Your task to perform on an android device: Install the Weather app Image 0: 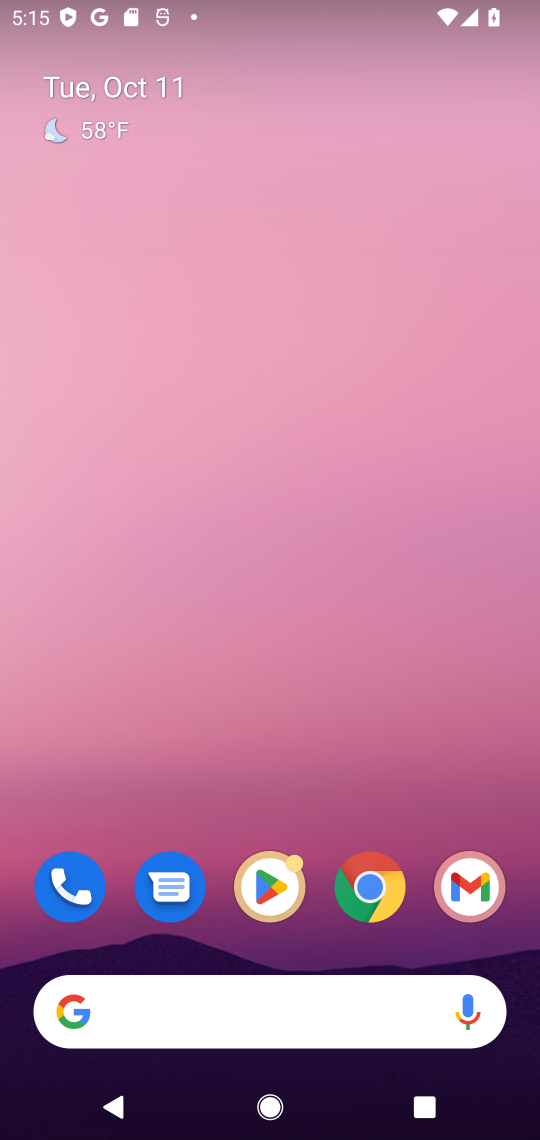
Step 0: click (273, 1020)
Your task to perform on an android device: Install the Weather app Image 1: 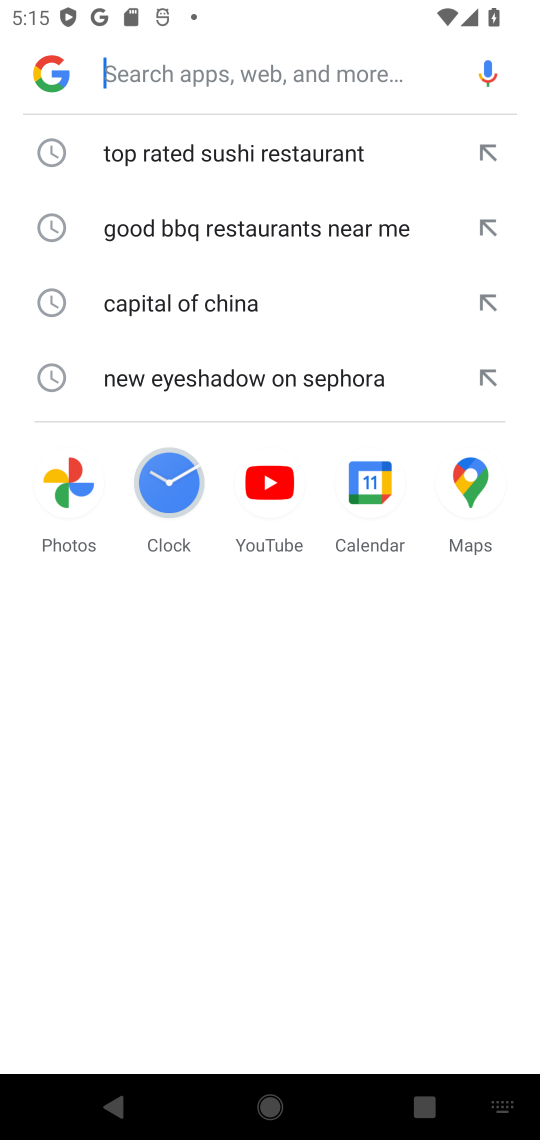
Step 1: press back button
Your task to perform on an android device: Install the Weather app Image 2: 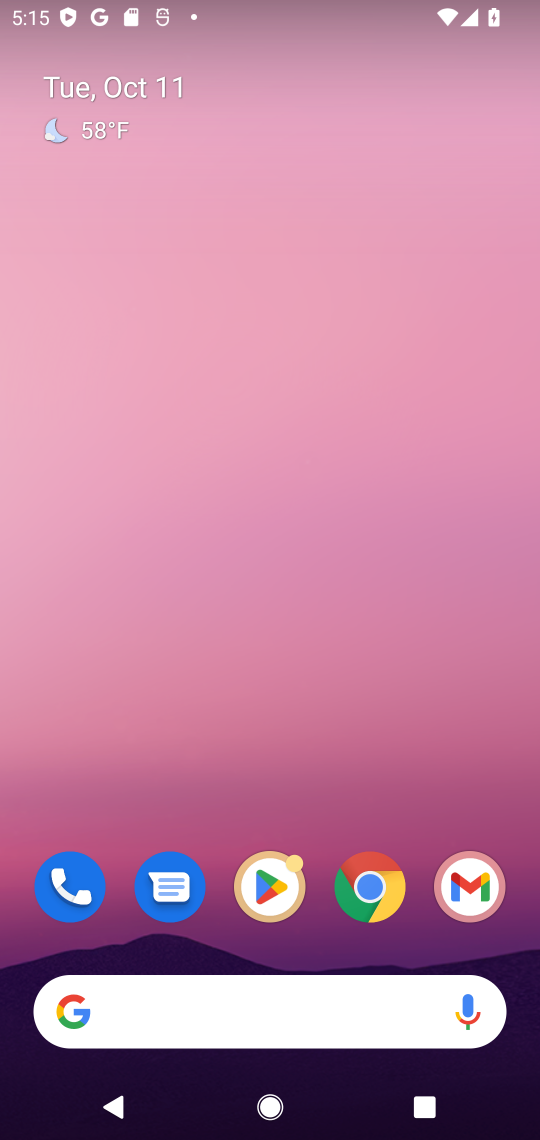
Step 2: click (266, 897)
Your task to perform on an android device: Install the Weather app Image 3: 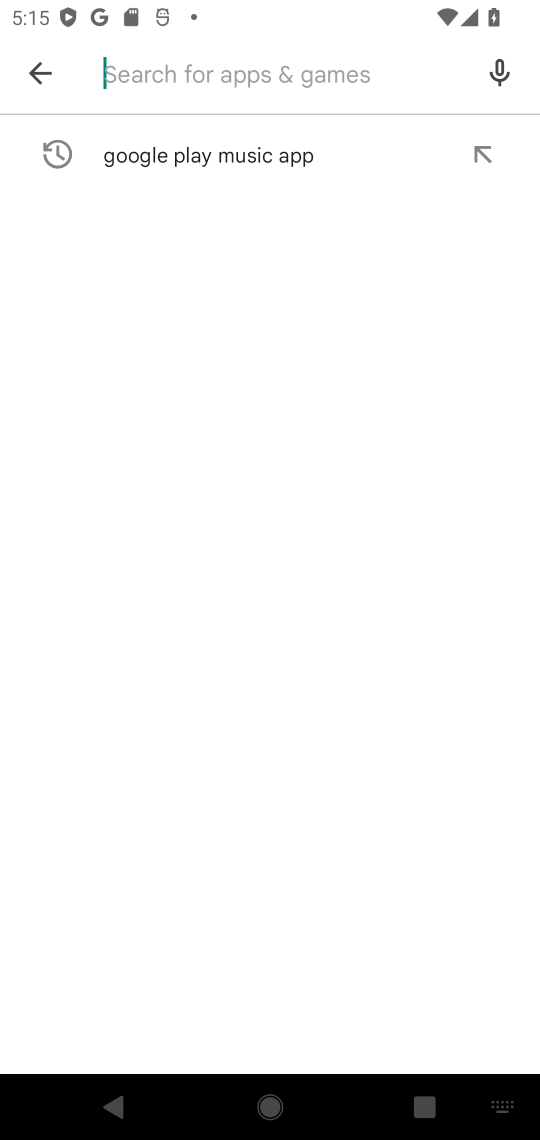
Step 3: click (187, 73)
Your task to perform on an android device: Install the Weather app Image 4: 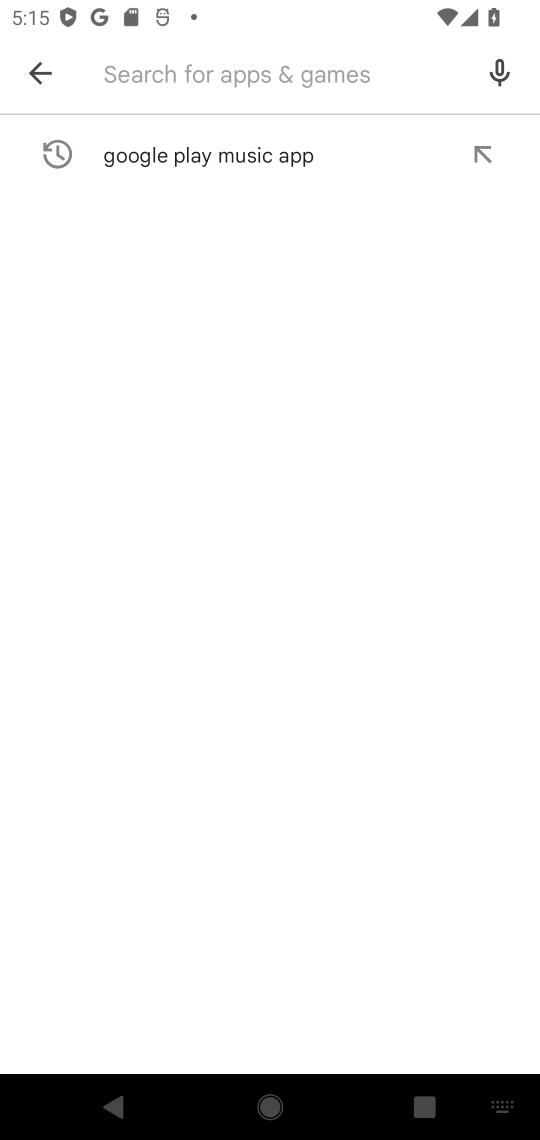
Step 4: type "Weather app"
Your task to perform on an android device: Install the Weather app Image 5: 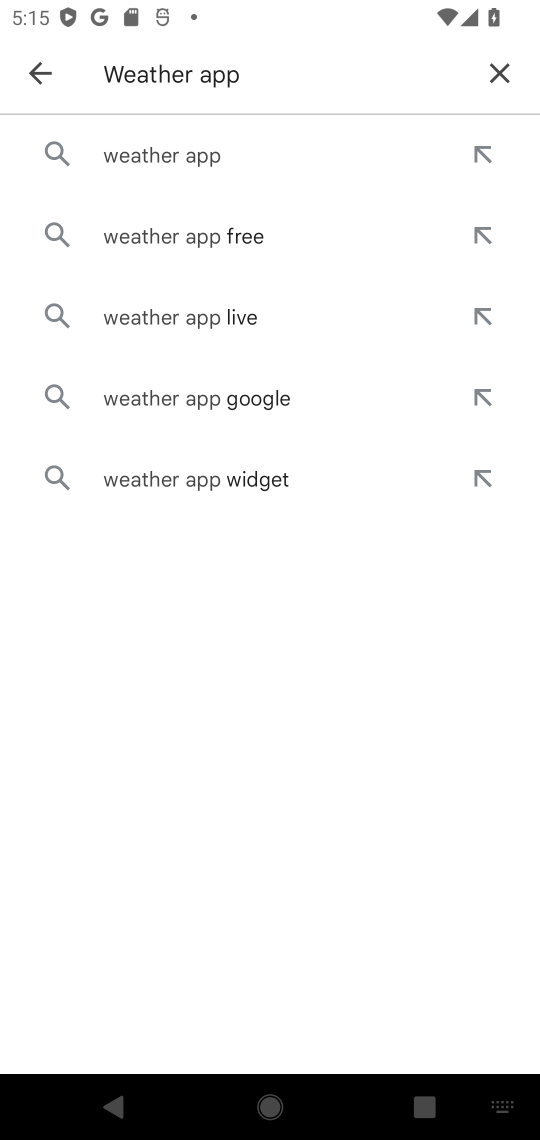
Step 5: type ""
Your task to perform on an android device: Install the Weather app Image 6: 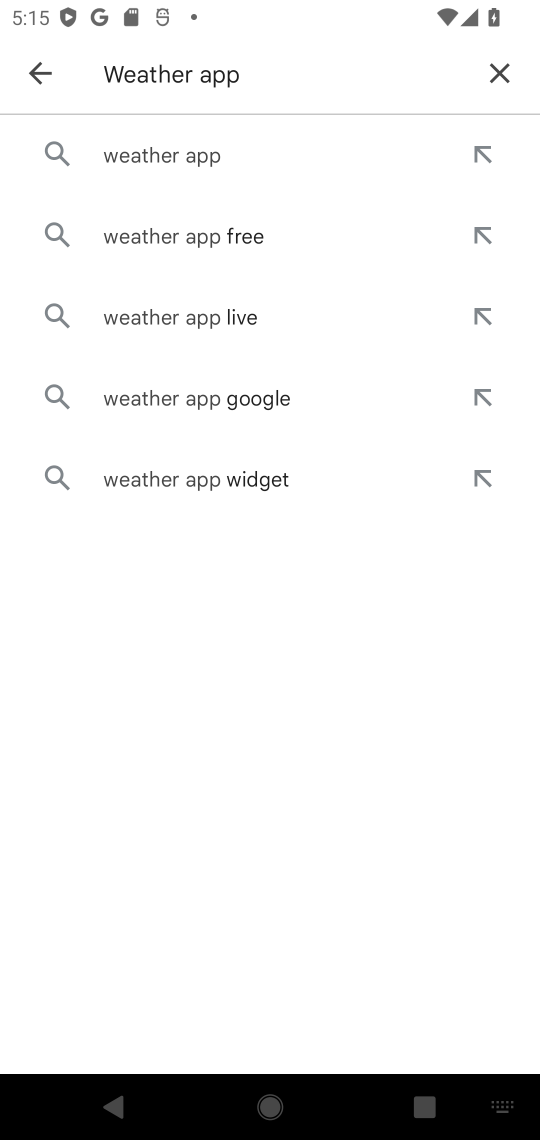
Step 6: type ""
Your task to perform on an android device: Install the Weather app Image 7: 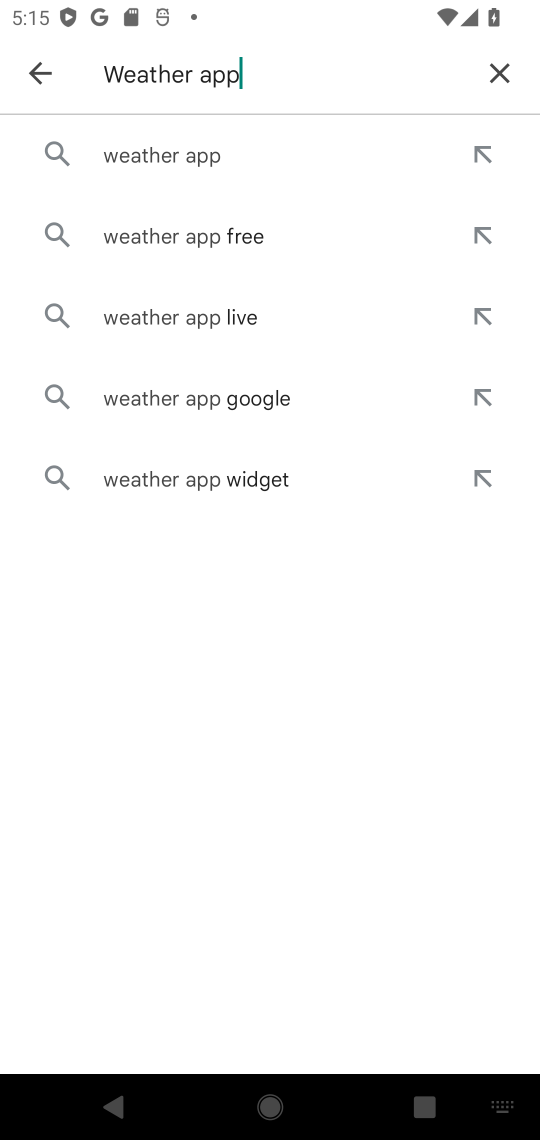
Step 7: type ""
Your task to perform on an android device: Install the Weather app Image 8: 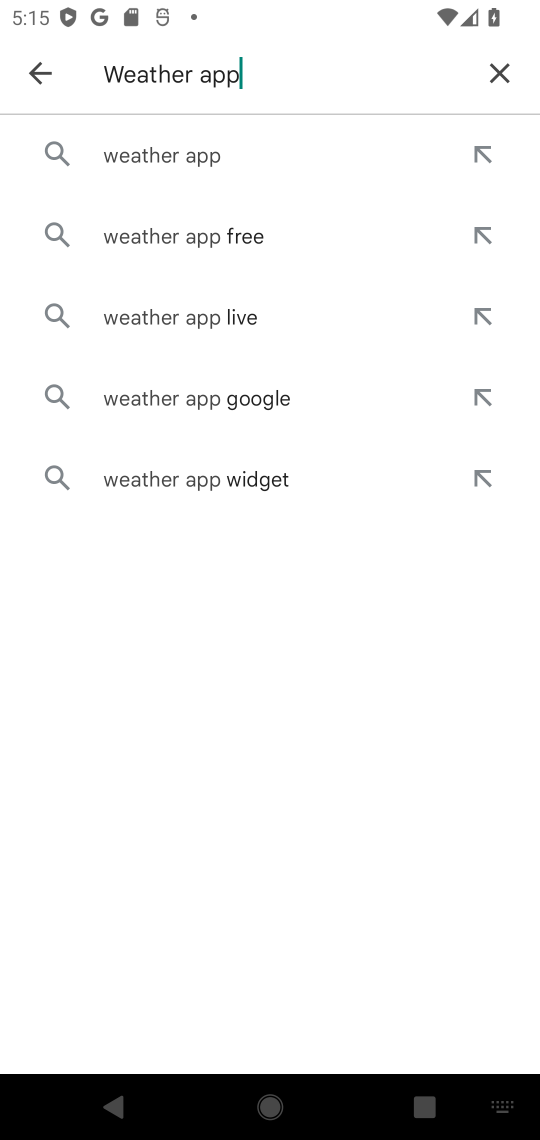
Step 8: press enter
Your task to perform on an android device: Install the Weather app Image 9: 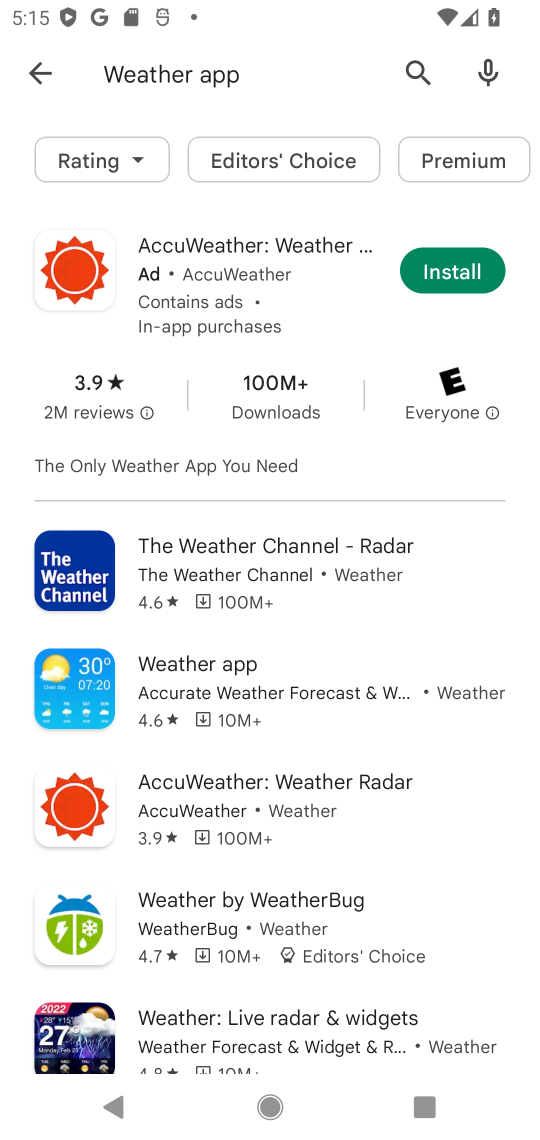
Step 9: click (453, 270)
Your task to perform on an android device: Install the Weather app Image 10: 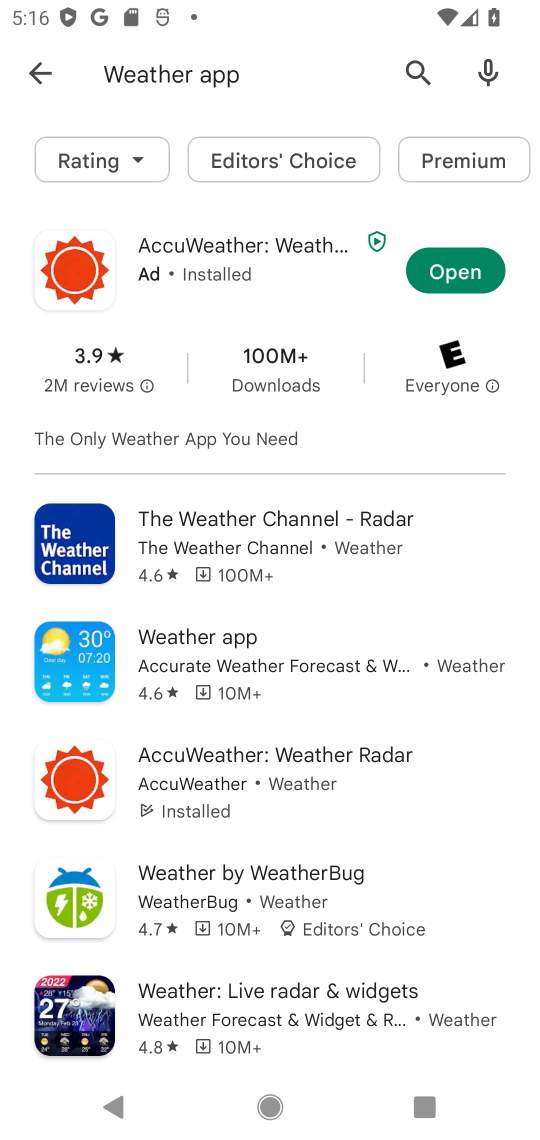
Step 10: click (447, 274)
Your task to perform on an android device: Install the Weather app Image 11: 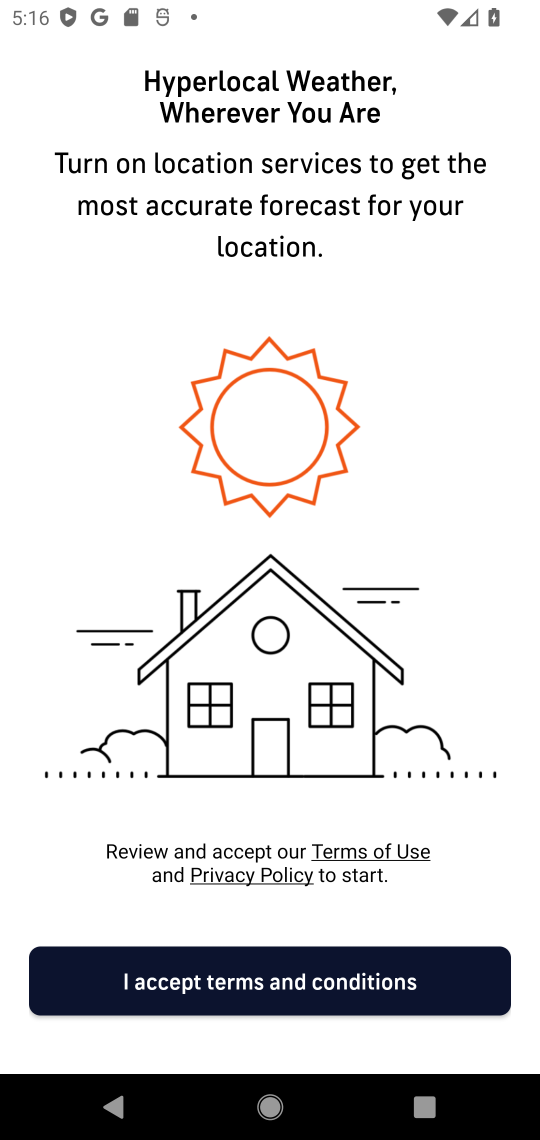
Step 11: click (241, 984)
Your task to perform on an android device: Install the Weather app Image 12: 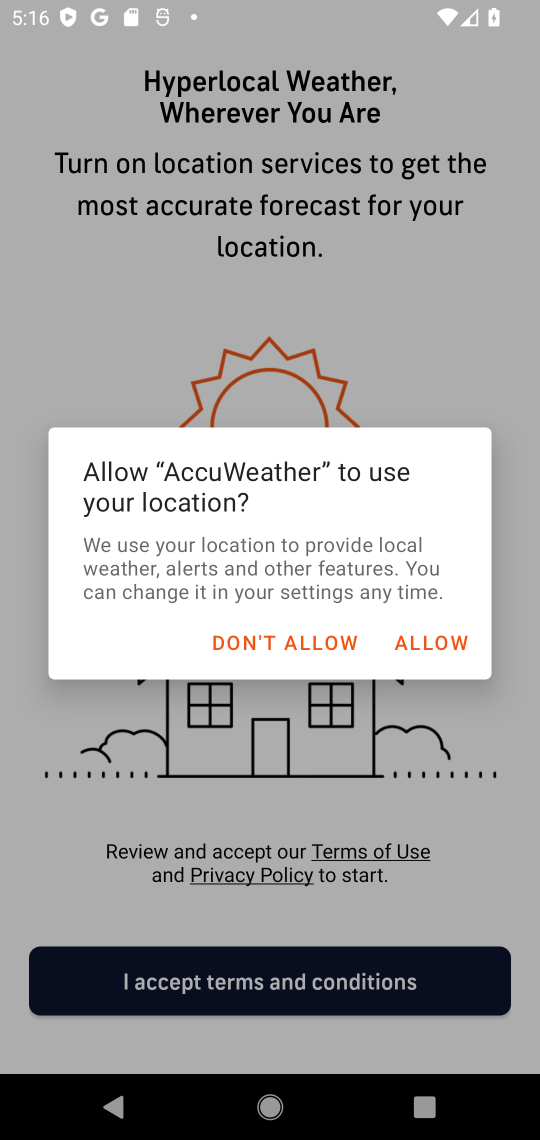
Step 12: click (430, 641)
Your task to perform on an android device: Install the Weather app Image 13: 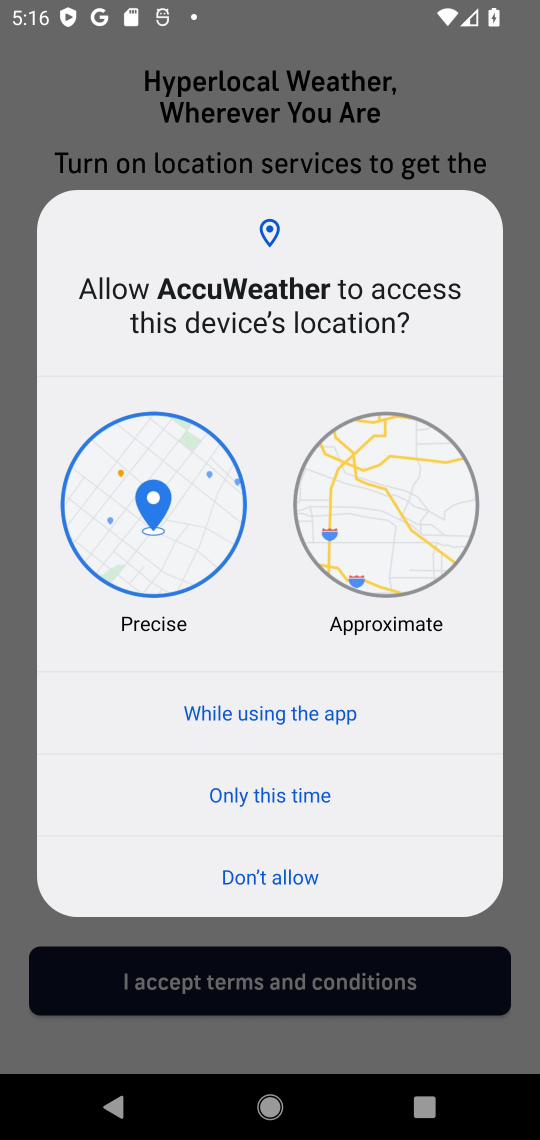
Step 13: click (313, 799)
Your task to perform on an android device: Install the Weather app Image 14: 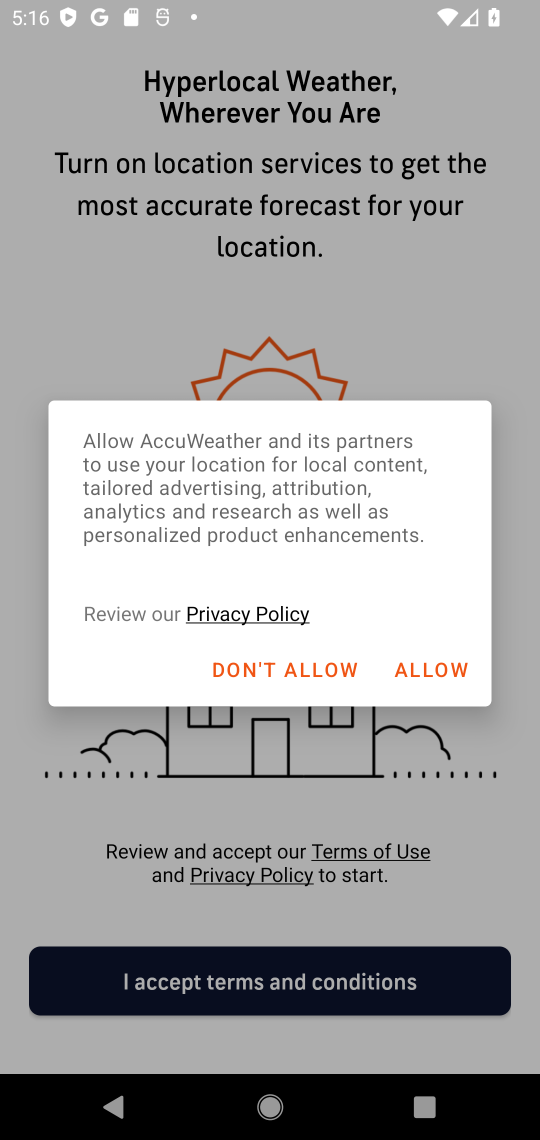
Step 14: click (419, 677)
Your task to perform on an android device: Install the Weather app Image 15: 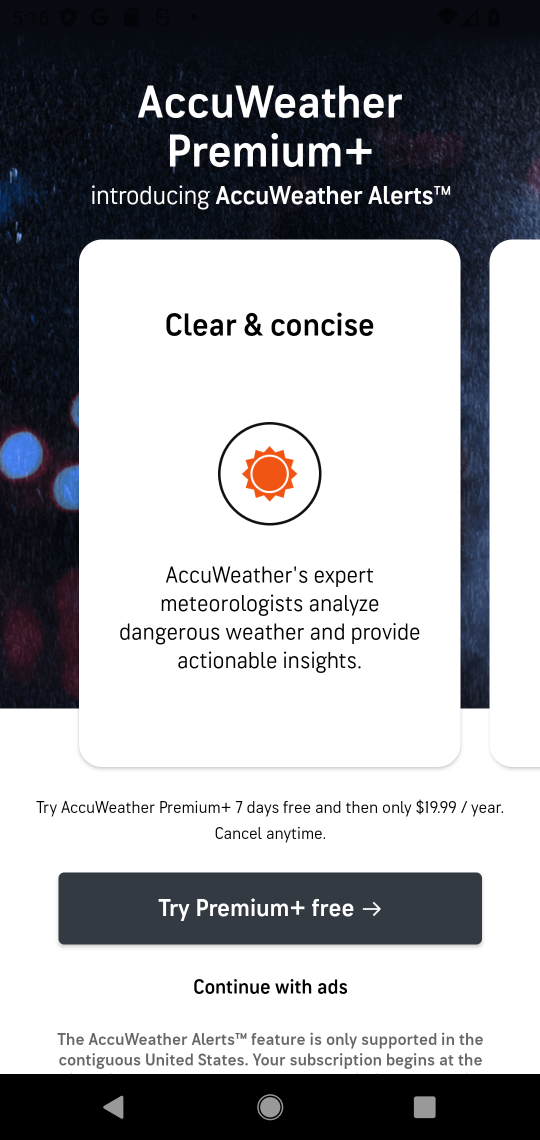
Step 15: click (347, 919)
Your task to perform on an android device: Install the Weather app Image 16: 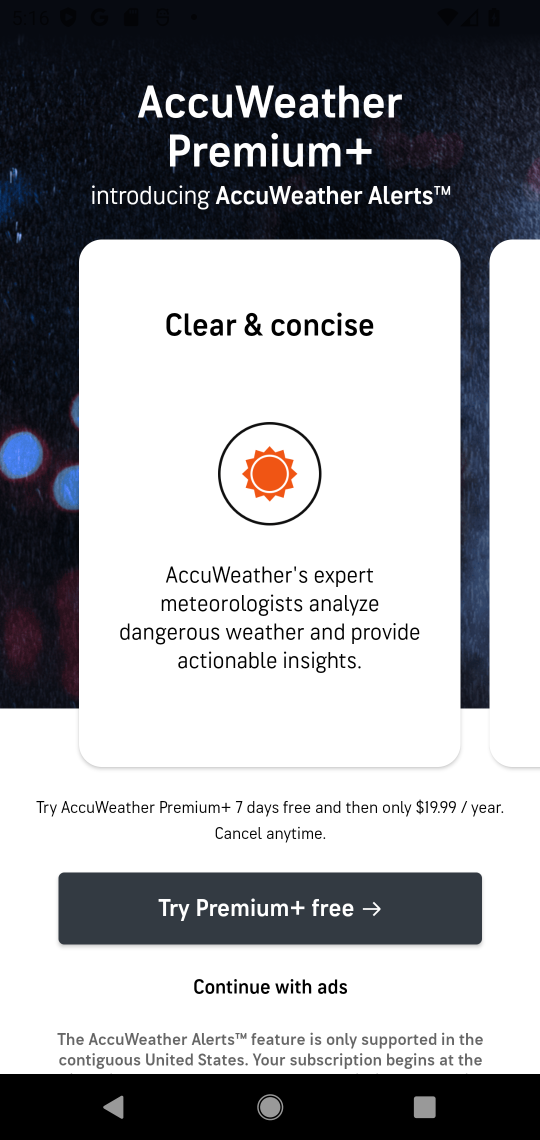
Step 16: click (347, 919)
Your task to perform on an android device: Install the Weather app Image 17: 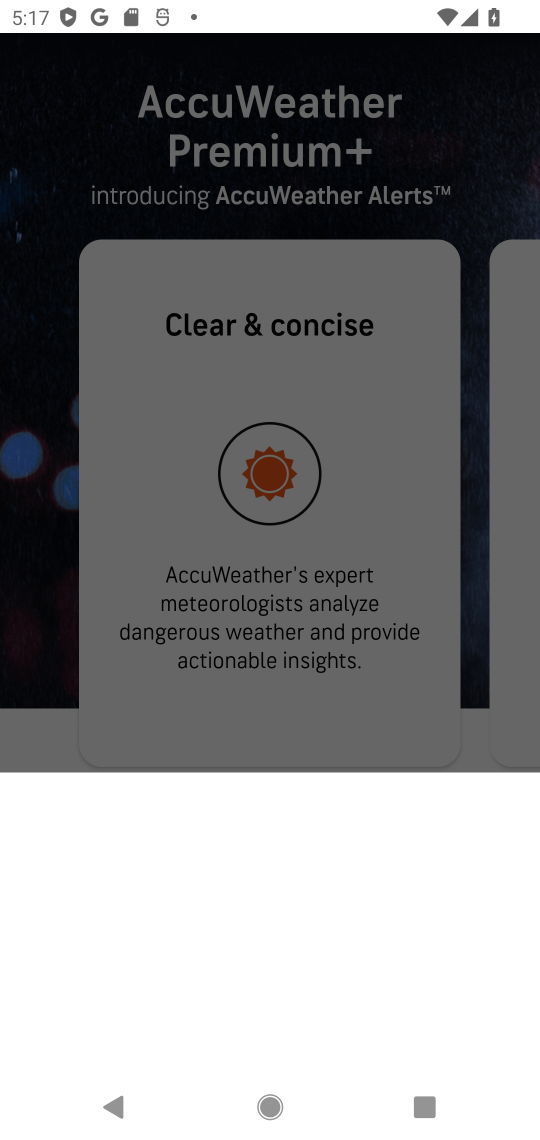
Step 17: click (385, 724)
Your task to perform on an android device: Install the Weather app Image 18: 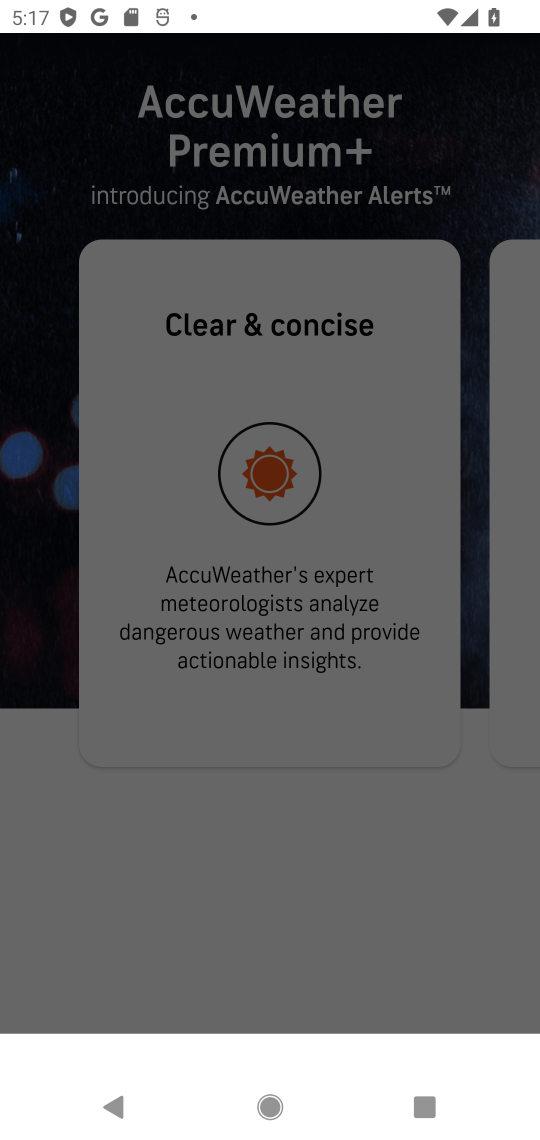
Step 18: click (376, 666)
Your task to perform on an android device: Install the Weather app Image 19: 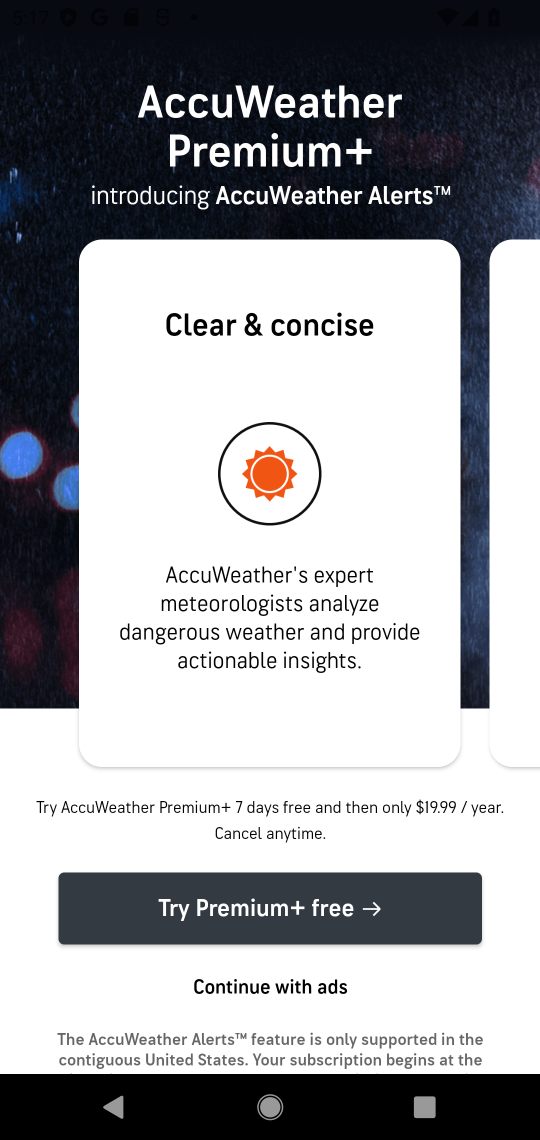
Step 19: click (293, 990)
Your task to perform on an android device: Install the Weather app Image 20: 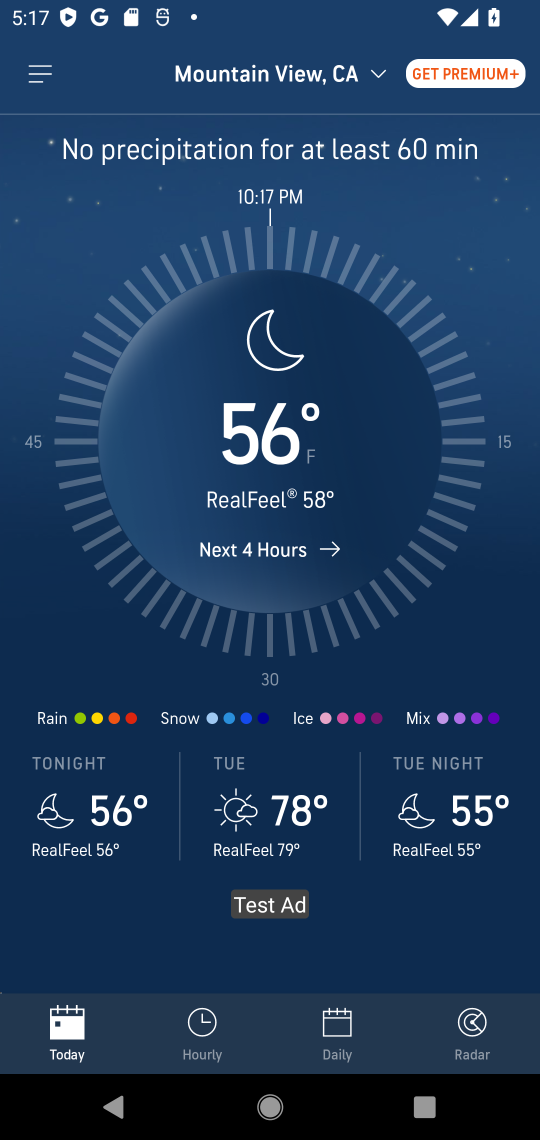
Step 20: click (382, 79)
Your task to perform on an android device: Install the Weather app Image 21: 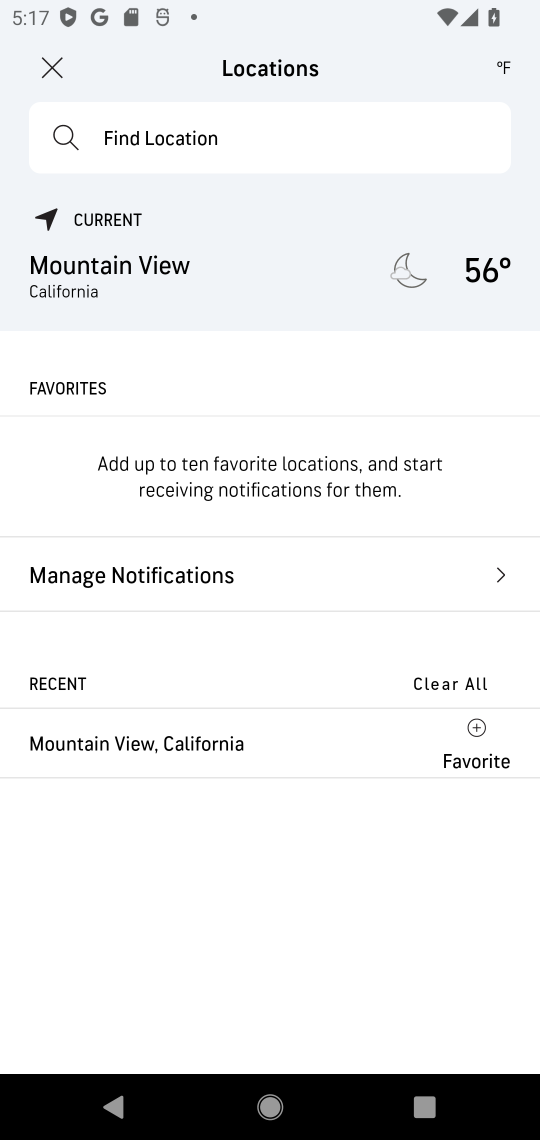
Step 21: click (303, 155)
Your task to perform on an android device: Install the Weather app Image 22: 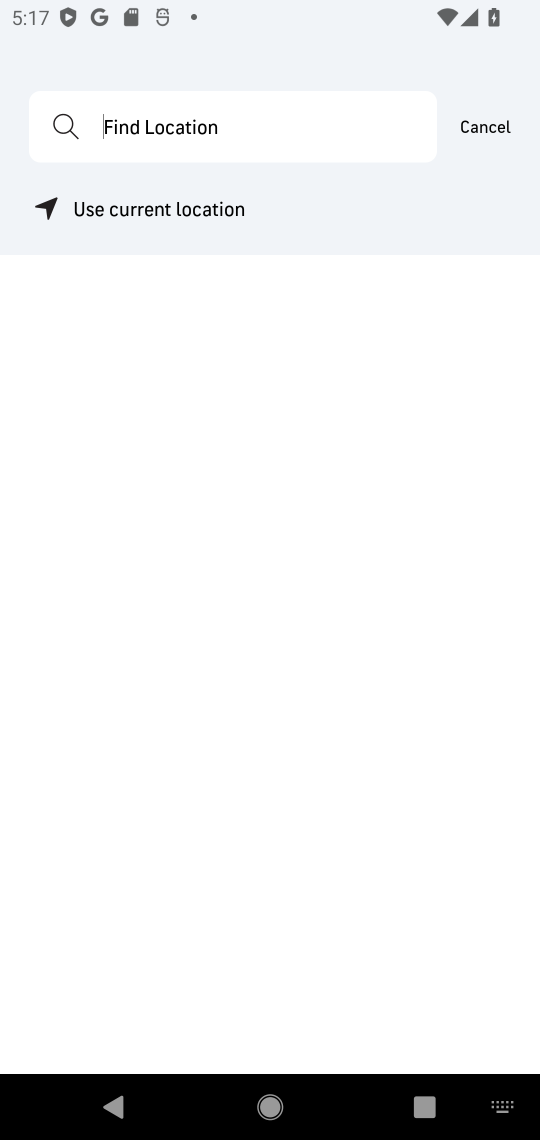
Step 22: click (239, 125)
Your task to perform on an android device: Install the Weather app Image 23: 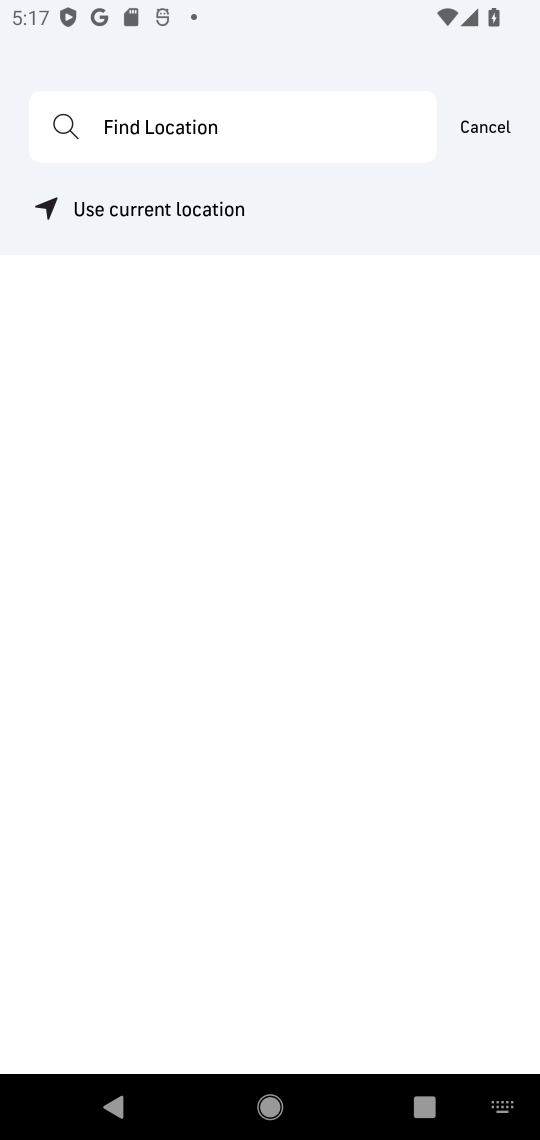
Step 23: type "kanpur"
Your task to perform on an android device: Install the Weather app Image 24: 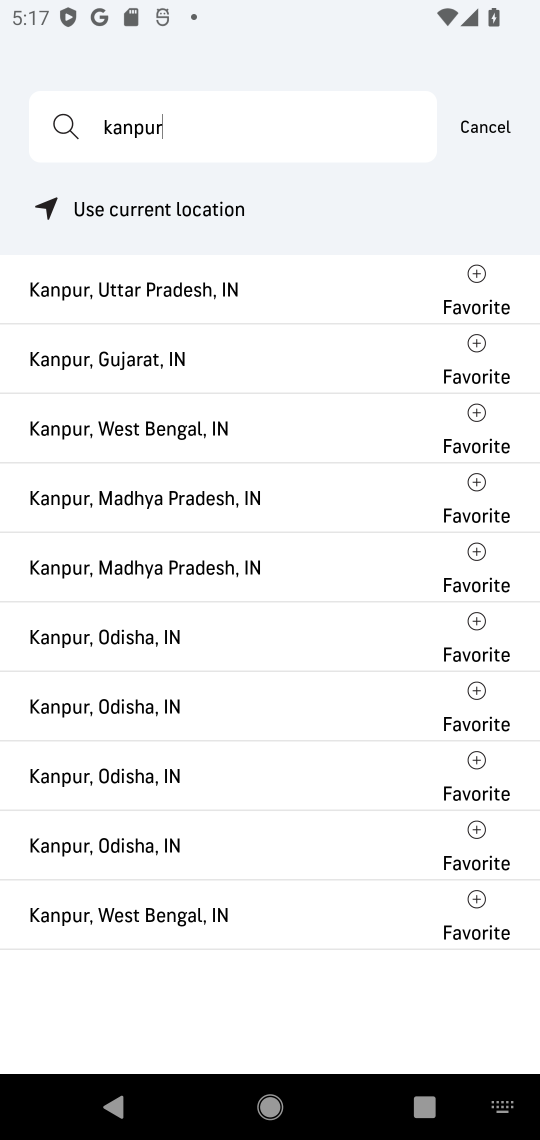
Step 24: click (209, 292)
Your task to perform on an android device: Install the Weather app Image 25: 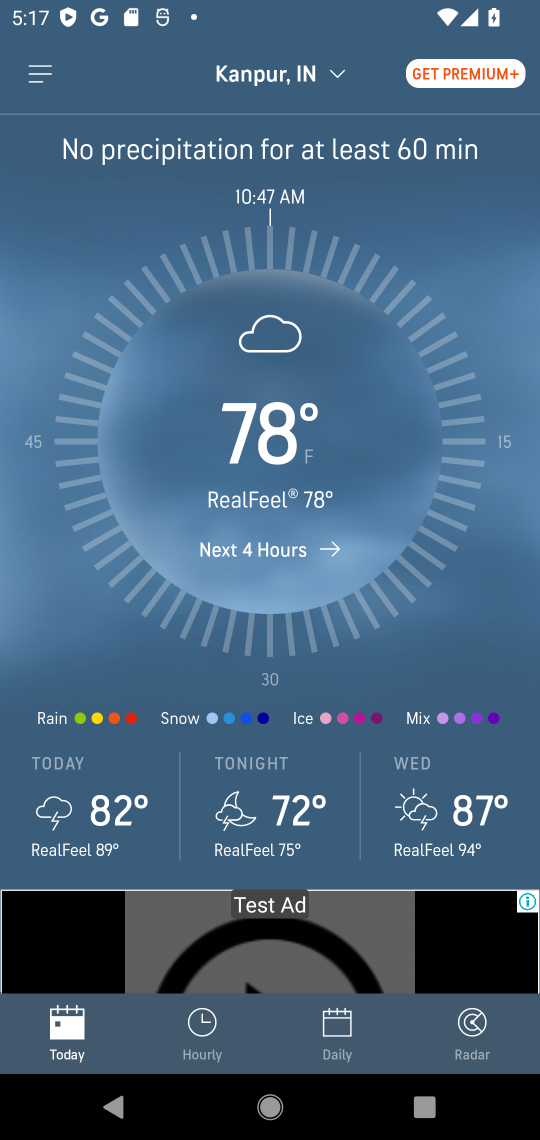
Step 25: click (304, 536)
Your task to perform on an android device: Install the Weather app Image 26: 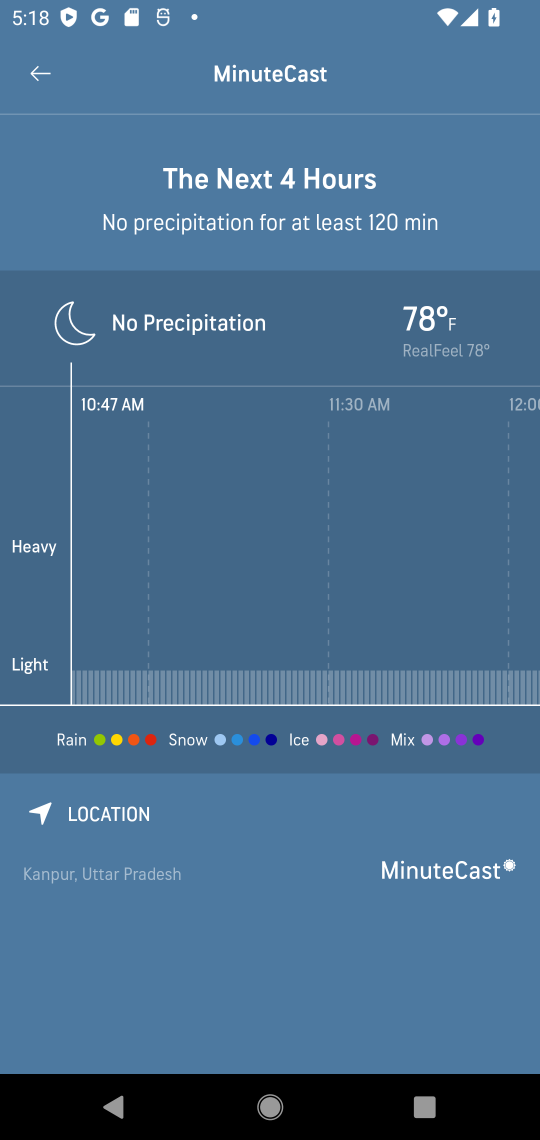
Step 26: click (435, 325)
Your task to perform on an android device: Install the Weather app Image 27: 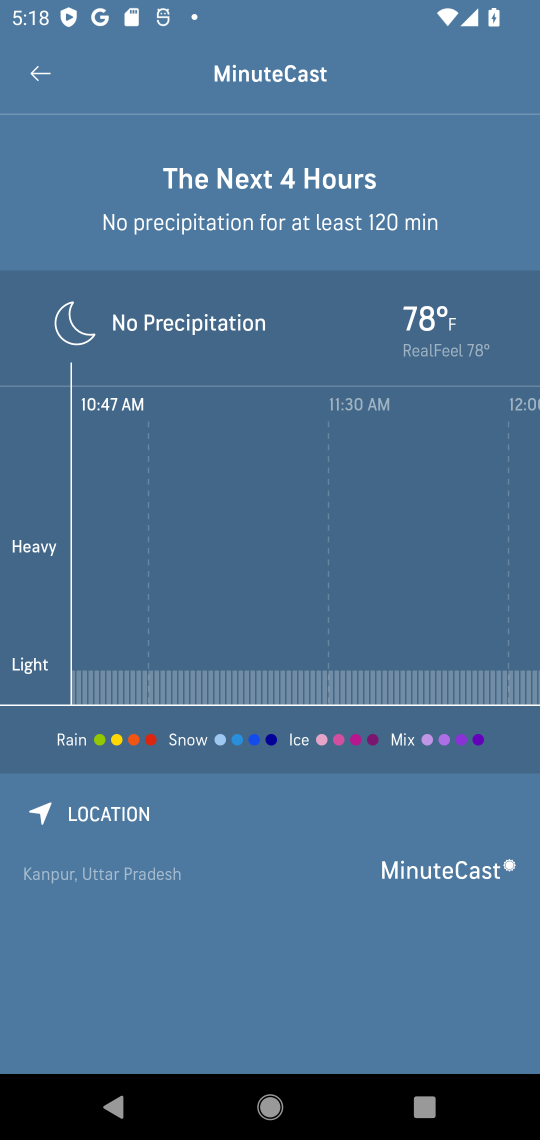
Step 27: click (36, 74)
Your task to perform on an android device: Install the Weather app Image 28: 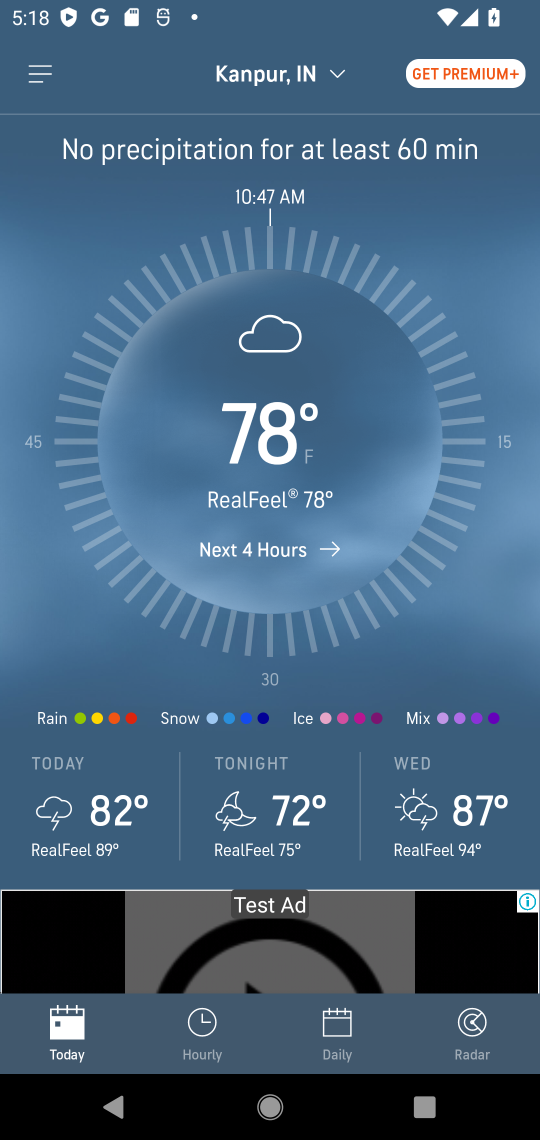
Step 28: task complete